Your task to perform on an android device: Clear the shopping cart on ebay.com. Add jbl flip 4 to the cart on ebay.com, then select checkout. Image 0: 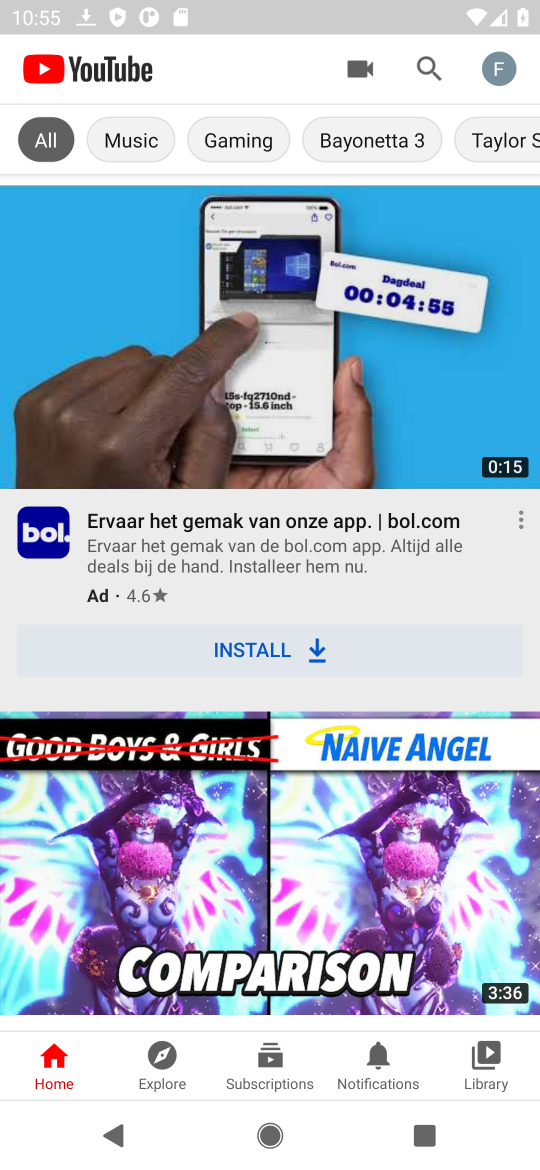
Step 0: press home button
Your task to perform on an android device: Clear the shopping cart on ebay.com. Add jbl flip 4 to the cart on ebay.com, then select checkout. Image 1: 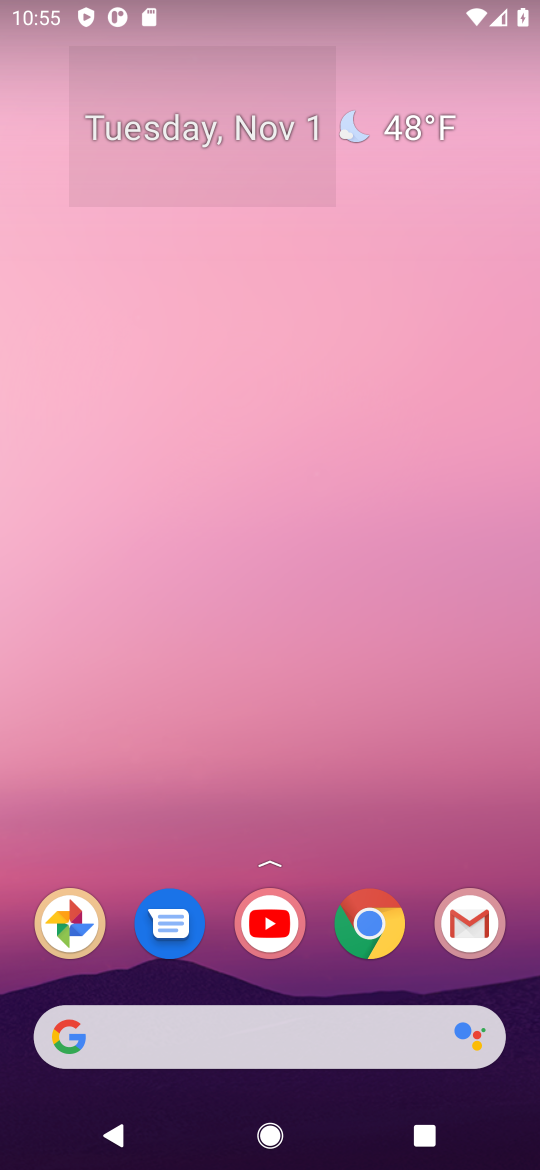
Step 1: click (379, 945)
Your task to perform on an android device: Clear the shopping cart on ebay.com. Add jbl flip 4 to the cart on ebay.com, then select checkout. Image 2: 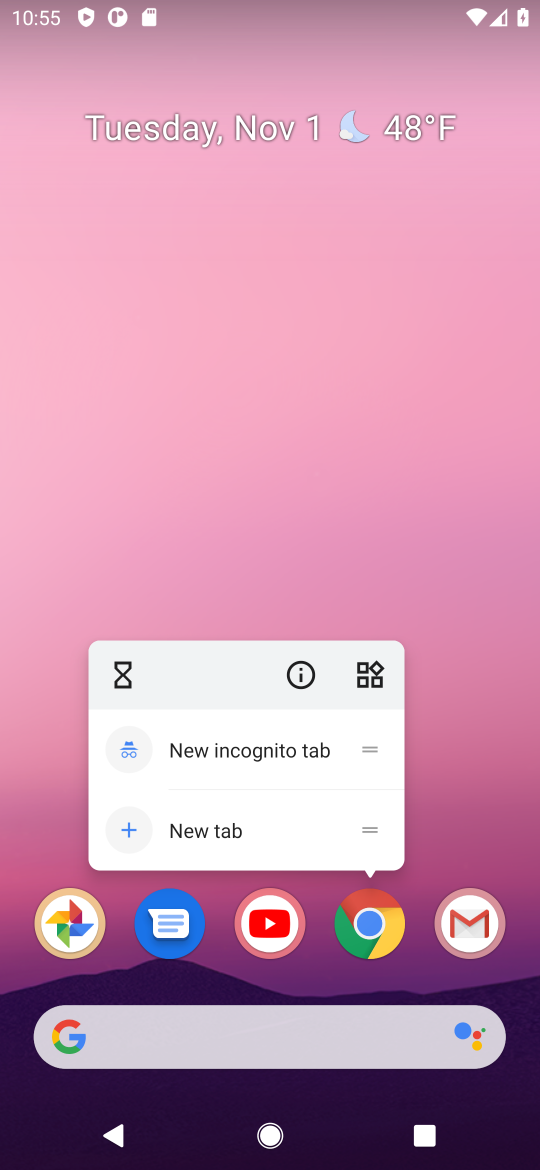
Step 2: click (378, 941)
Your task to perform on an android device: Clear the shopping cart on ebay.com. Add jbl flip 4 to the cart on ebay.com, then select checkout. Image 3: 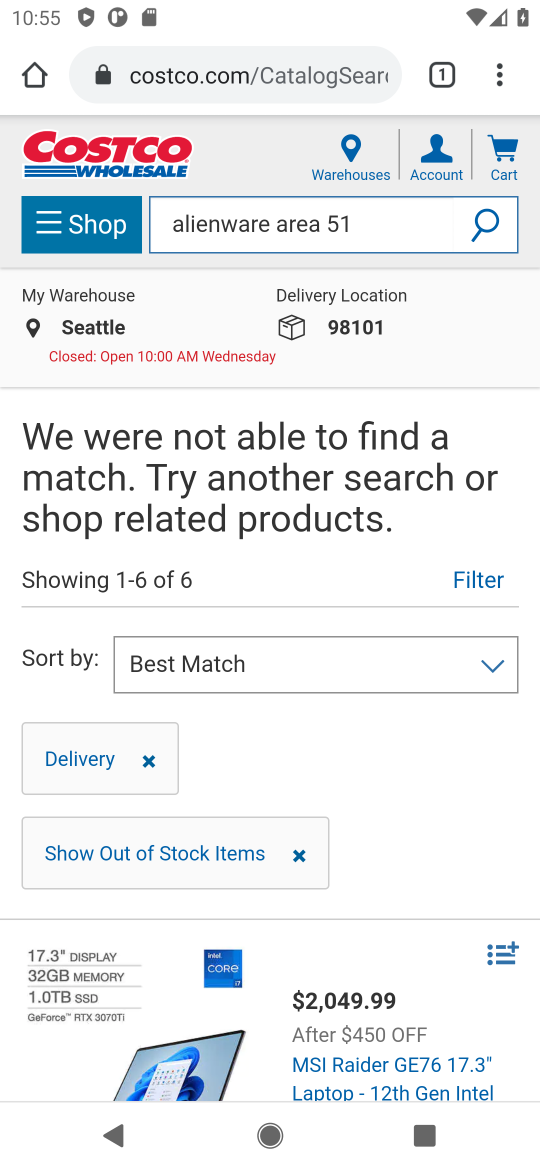
Step 3: click (267, 79)
Your task to perform on an android device: Clear the shopping cart on ebay.com. Add jbl flip 4 to the cart on ebay.com, then select checkout. Image 4: 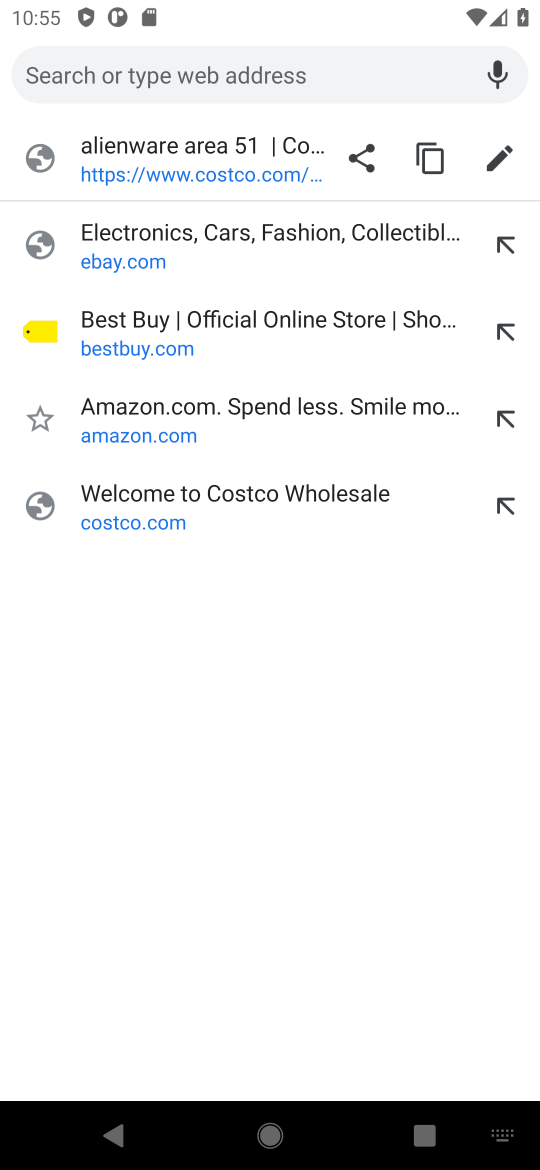
Step 4: type "ebay.com"
Your task to perform on an android device: Clear the shopping cart on ebay.com. Add jbl flip 4 to the cart on ebay.com, then select checkout. Image 5: 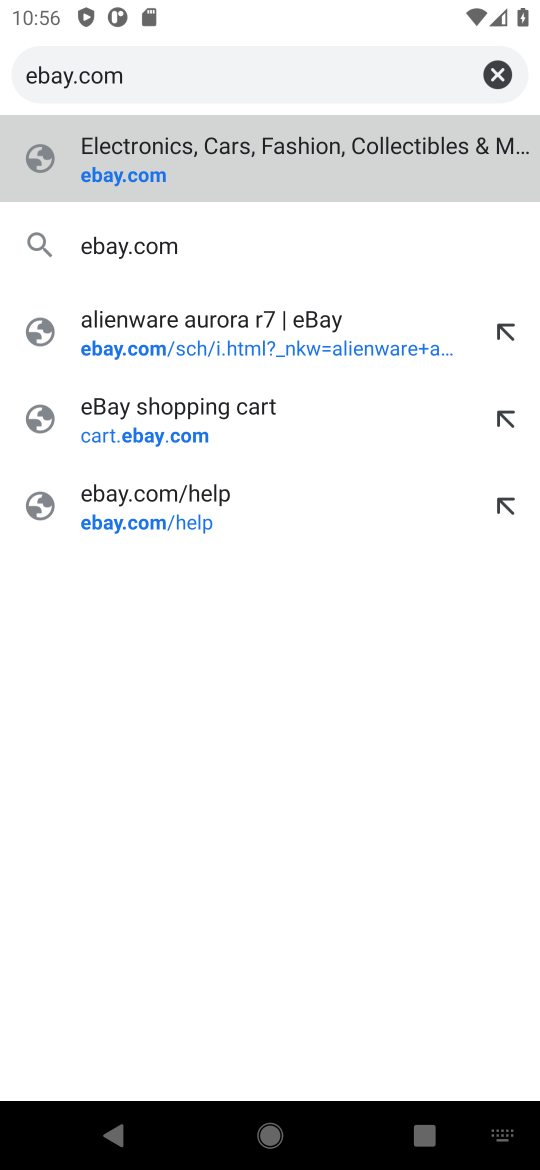
Step 5: click (230, 183)
Your task to perform on an android device: Clear the shopping cart on ebay.com. Add jbl flip 4 to the cart on ebay.com, then select checkout. Image 6: 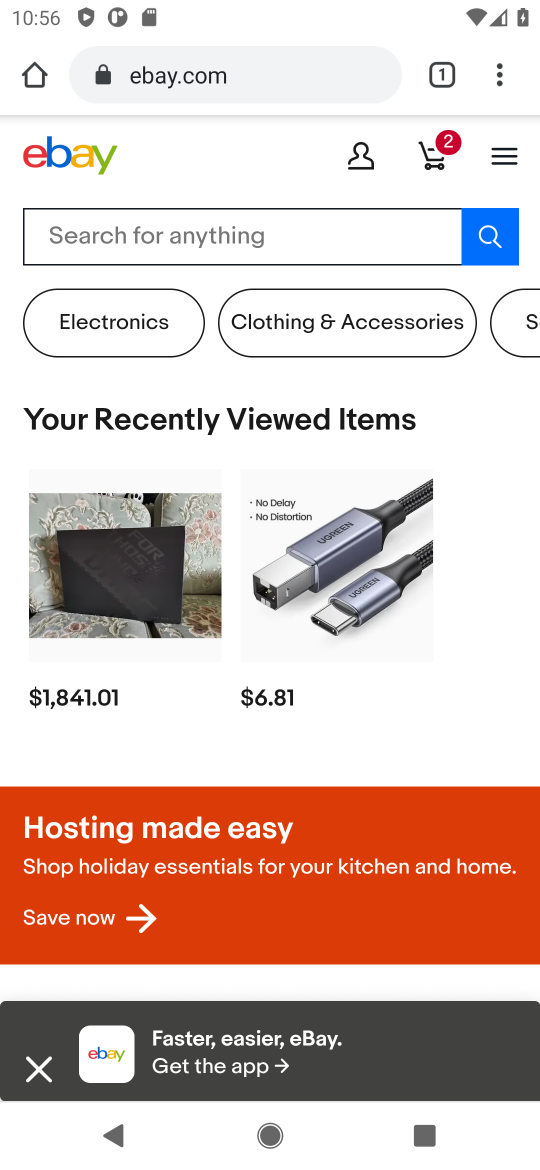
Step 6: click (287, 245)
Your task to perform on an android device: Clear the shopping cart on ebay.com. Add jbl flip 4 to the cart on ebay.com, then select checkout. Image 7: 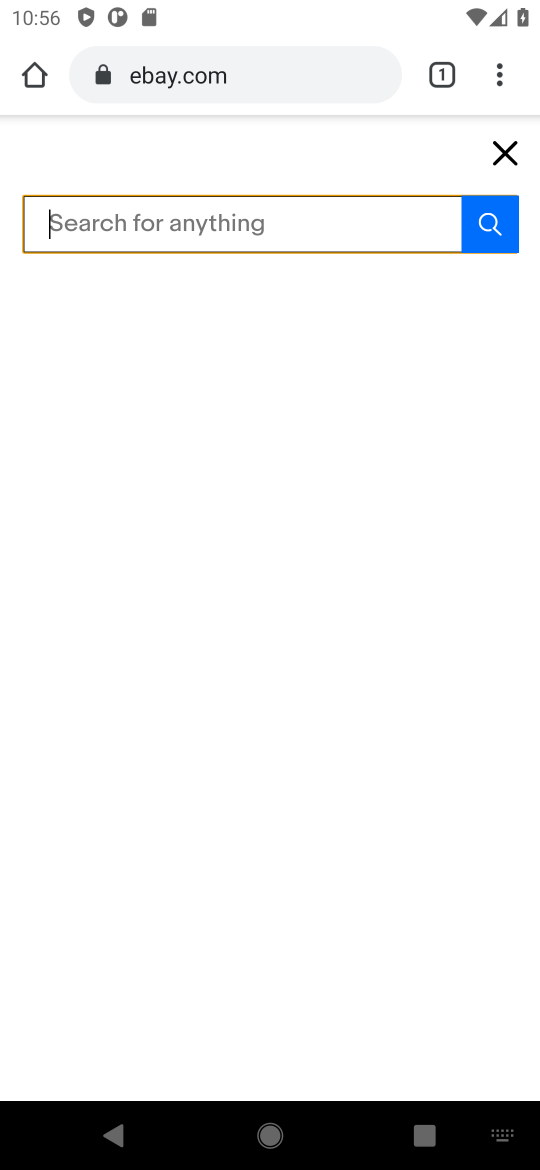
Step 7: type "jbl flip 4"
Your task to perform on an android device: Clear the shopping cart on ebay.com. Add jbl flip 4 to the cart on ebay.com, then select checkout. Image 8: 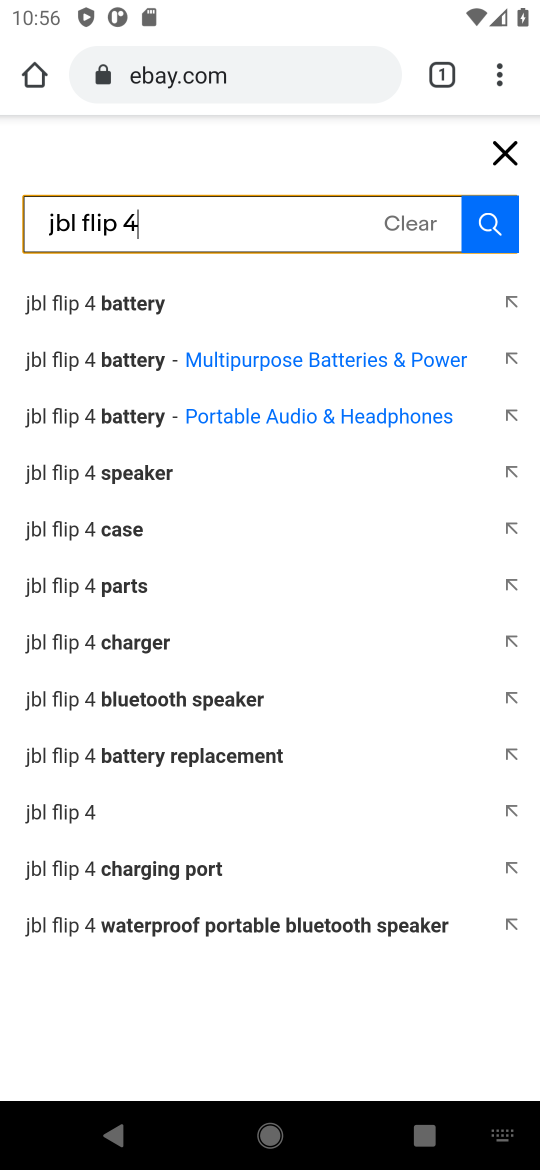
Step 8: press enter
Your task to perform on an android device: Clear the shopping cart on ebay.com. Add jbl flip 4 to the cart on ebay.com, then select checkout. Image 9: 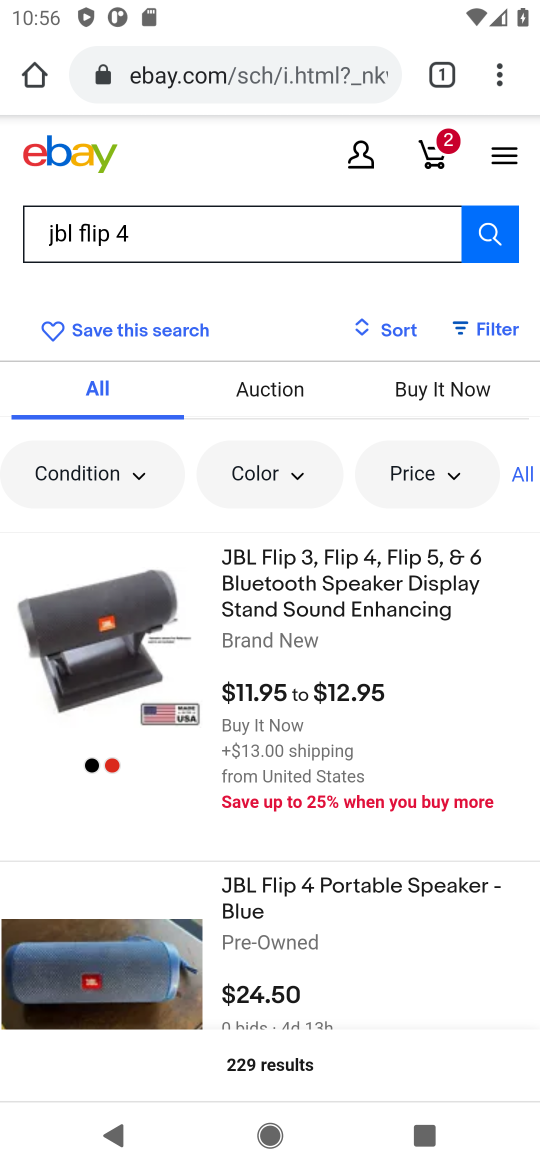
Step 9: click (152, 952)
Your task to perform on an android device: Clear the shopping cart on ebay.com. Add jbl flip 4 to the cart on ebay.com, then select checkout. Image 10: 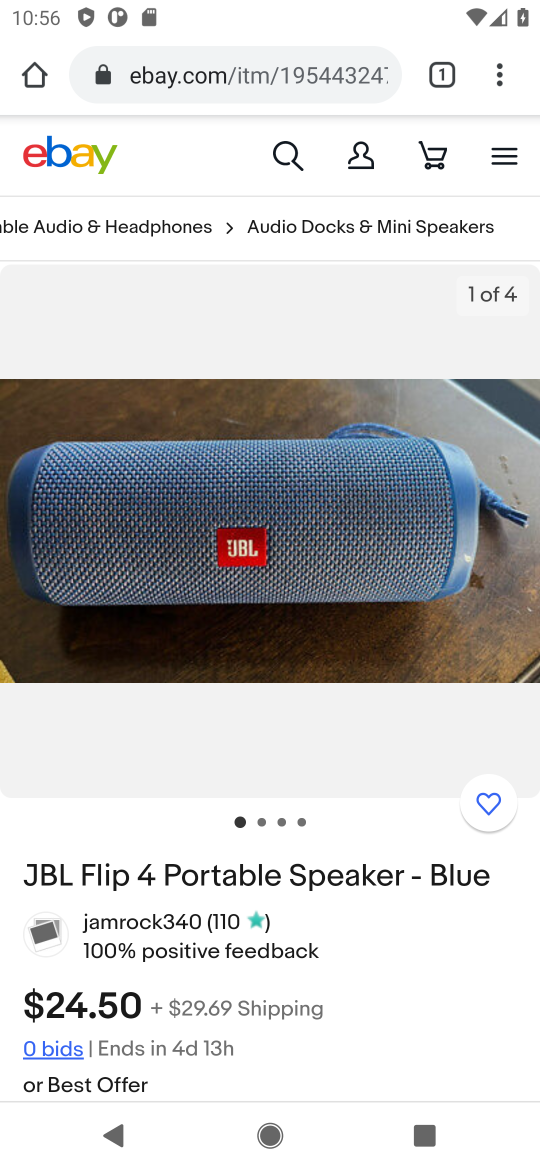
Step 10: task complete